Your task to perform on an android device: set default search engine in the chrome app Image 0: 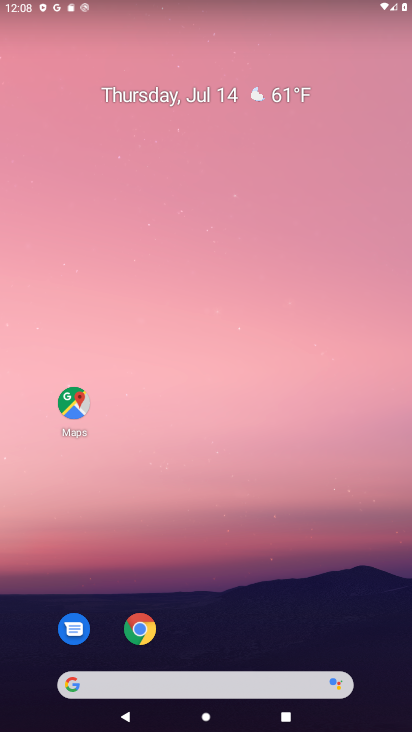
Step 0: click (143, 629)
Your task to perform on an android device: set default search engine in the chrome app Image 1: 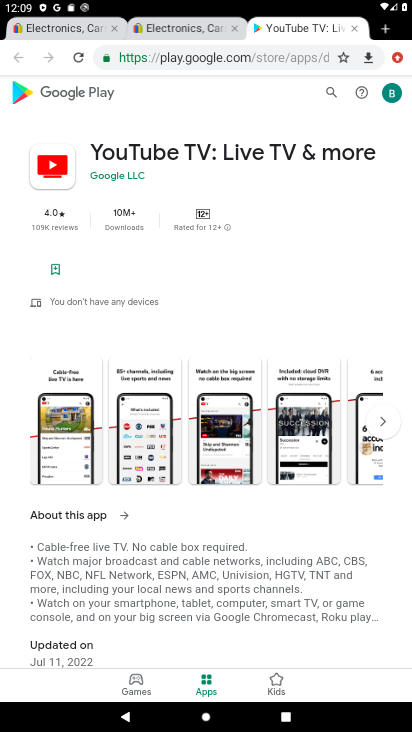
Step 1: click (393, 56)
Your task to perform on an android device: set default search engine in the chrome app Image 2: 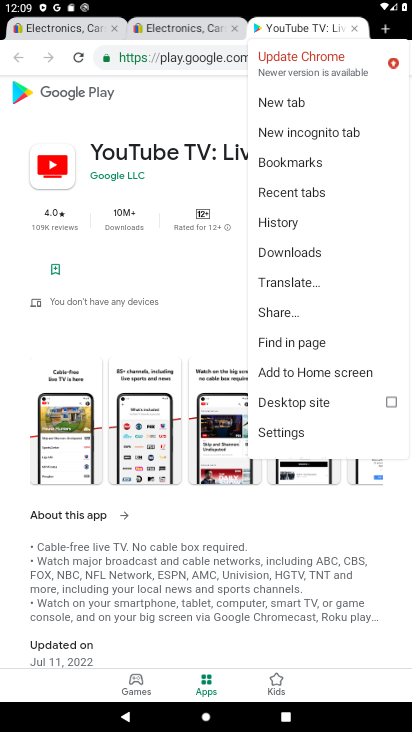
Step 2: click (275, 434)
Your task to perform on an android device: set default search engine in the chrome app Image 3: 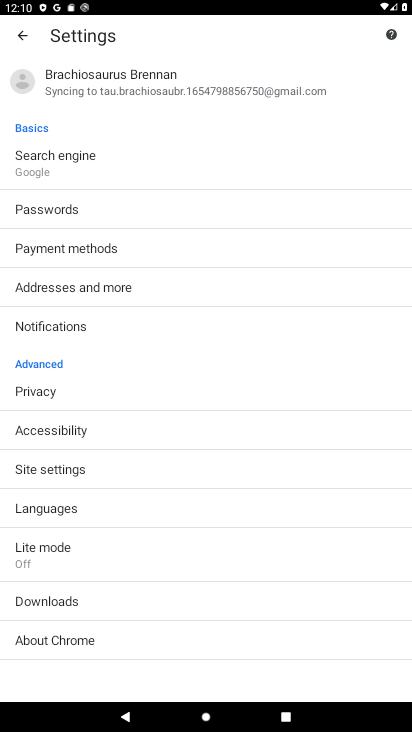
Step 3: click (81, 177)
Your task to perform on an android device: set default search engine in the chrome app Image 4: 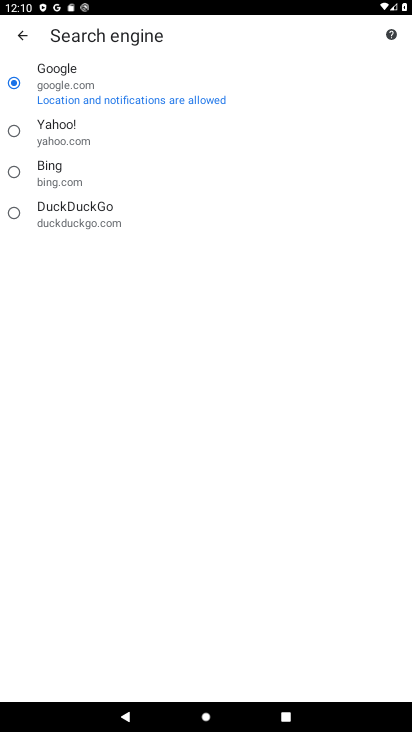
Step 4: click (78, 169)
Your task to perform on an android device: set default search engine in the chrome app Image 5: 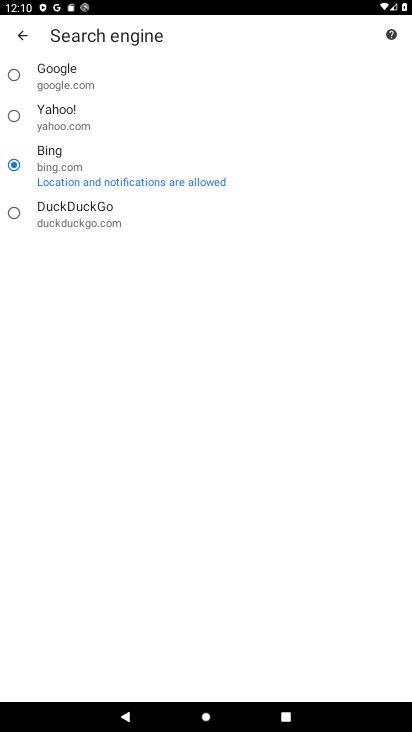
Step 5: task complete